Your task to perform on an android device: Add usb-a to the cart on walmart, then select checkout. Image 0: 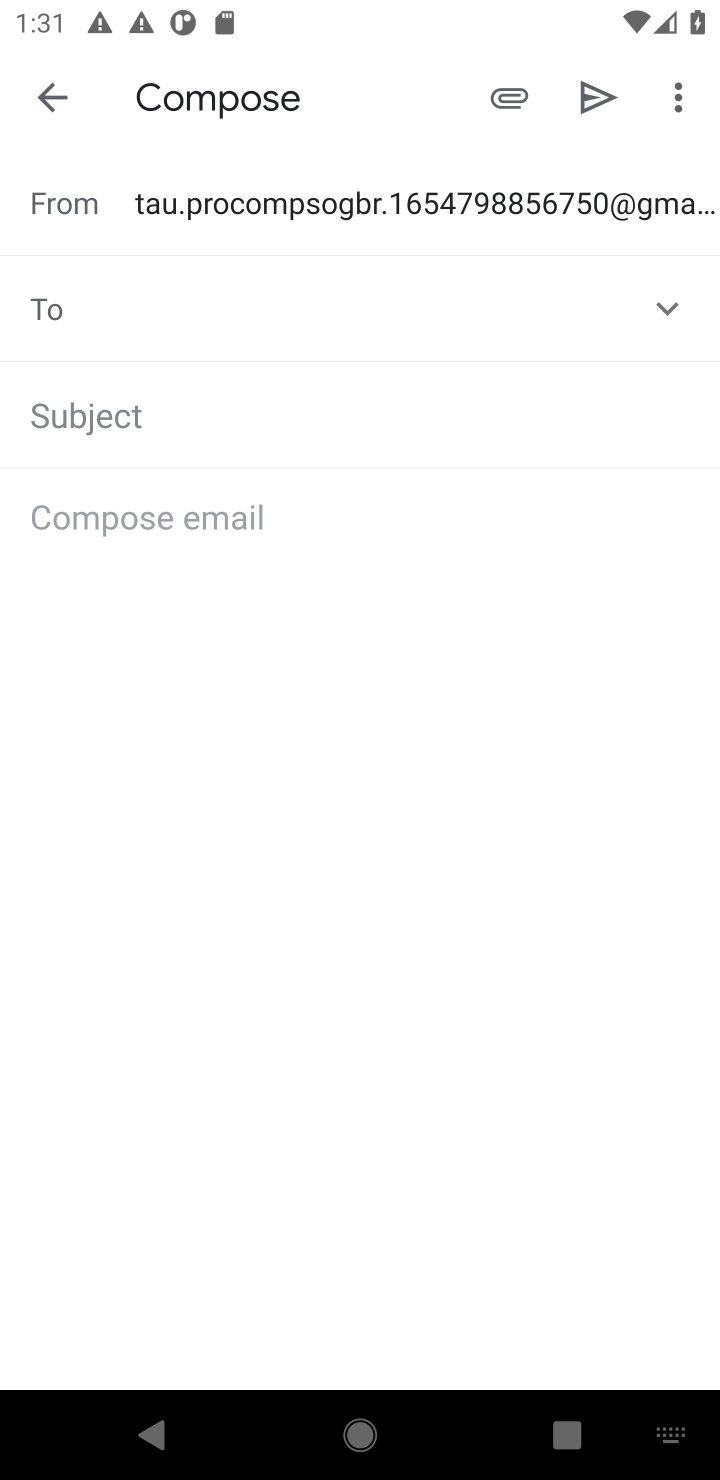
Step 0: press home button
Your task to perform on an android device: Add usb-a to the cart on walmart, then select checkout. Image 1: 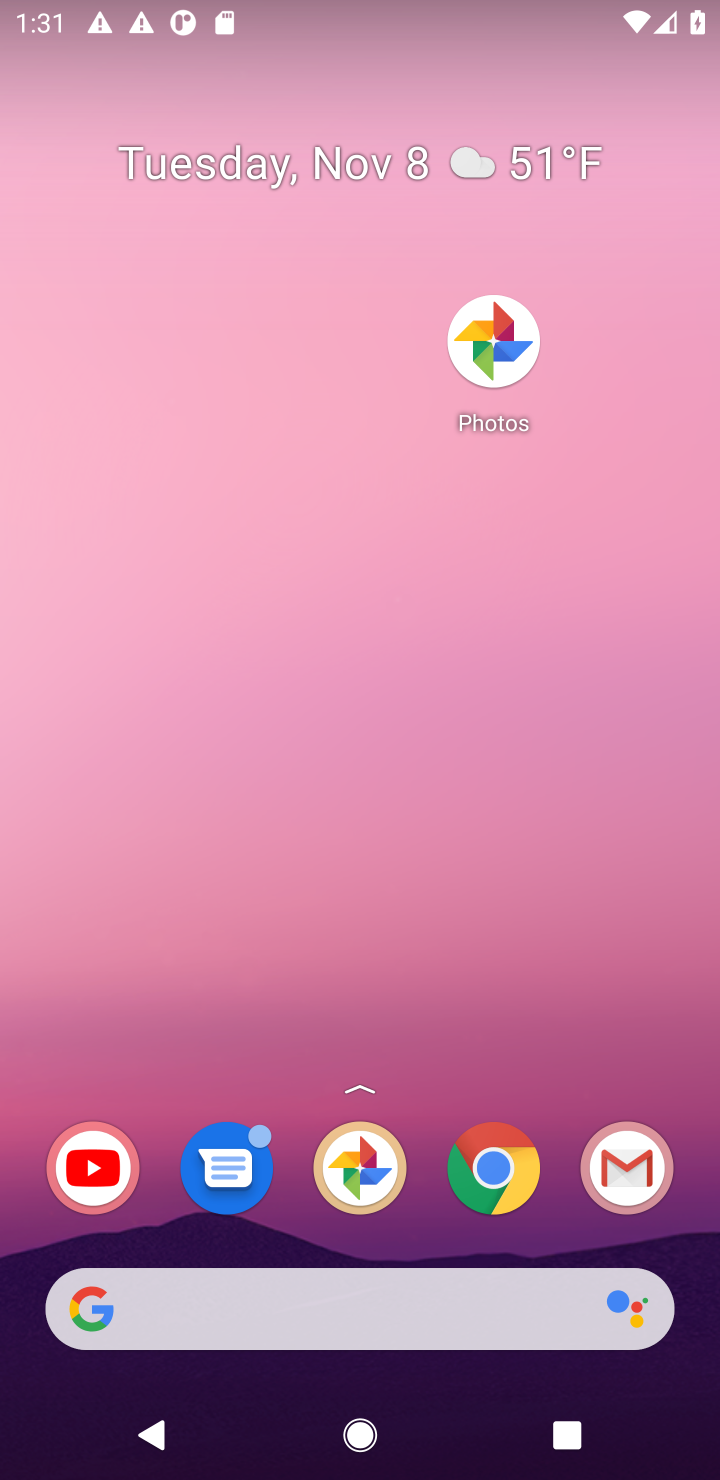
Step 1: drag from (407, 1082) to (338, 316)
Your task to perform on an android device: Add usb-a to the cart on walmart, then select checkout. Image 2: 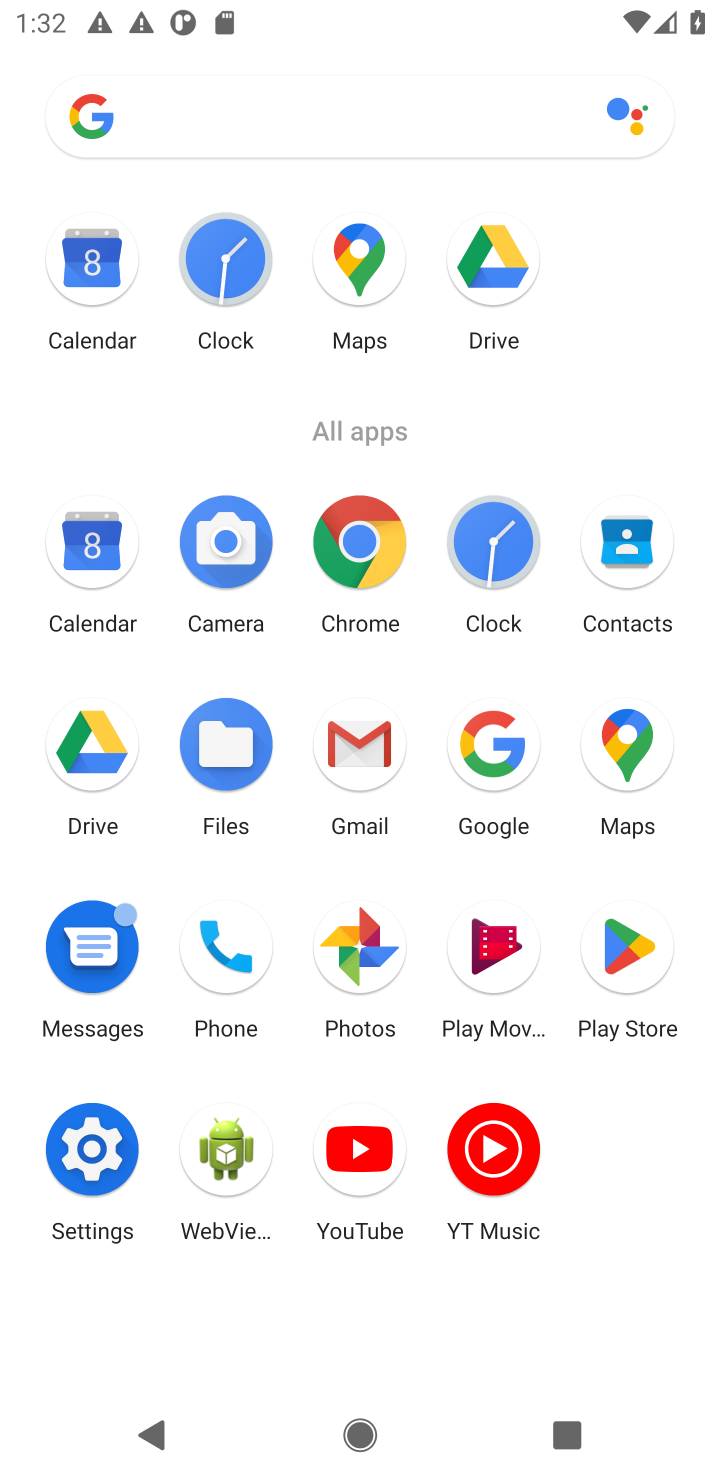
Step 2: click (385, 556)
Your task to perform on an android device: Add usb-a to the cart on walmart, then select checkout. Image 3: 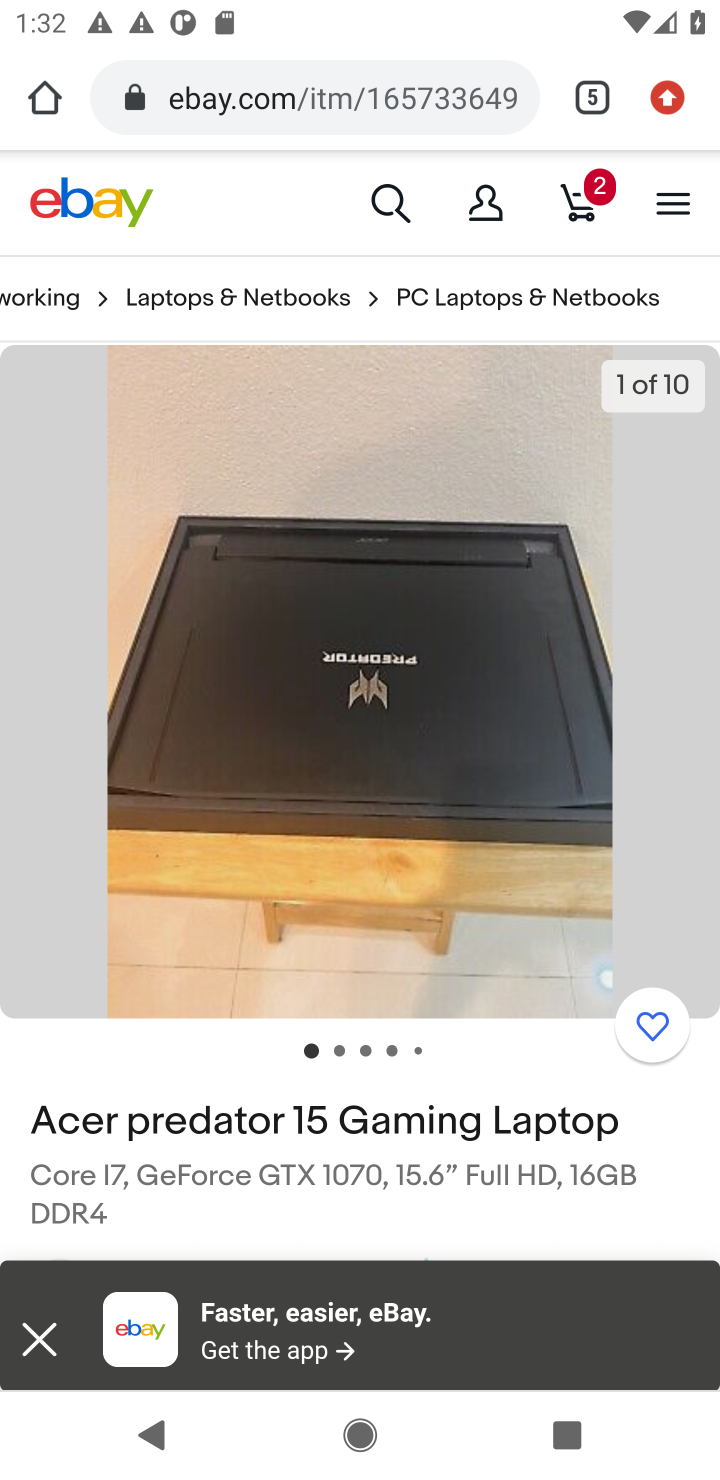
Step 3: click (339, 98)
Your task to perform on an android device: Add usb-a to the cart on walmart, then select checkout. Image 4: 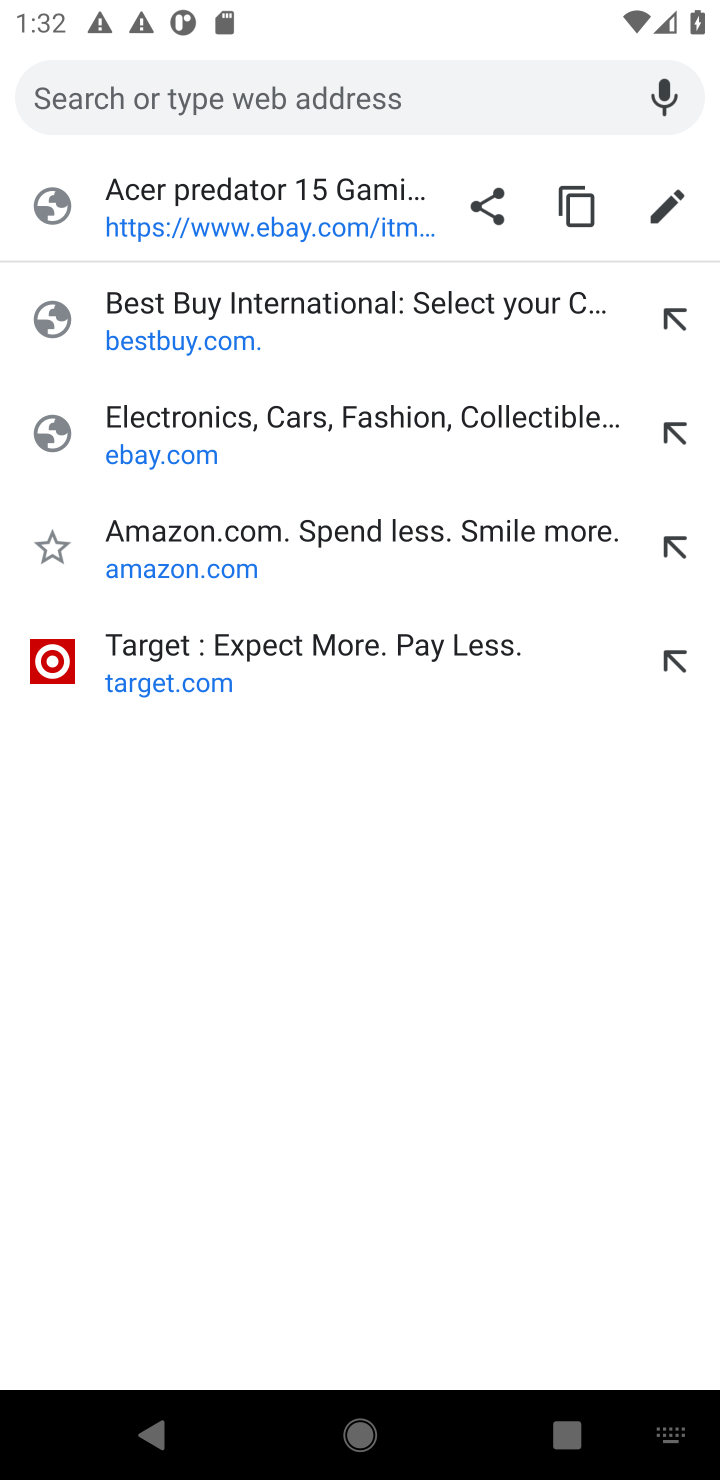
Step 4: press enter
Your task to perform on an android device: Add usb-a to the cart on walmart, then select checkout. Image 5: 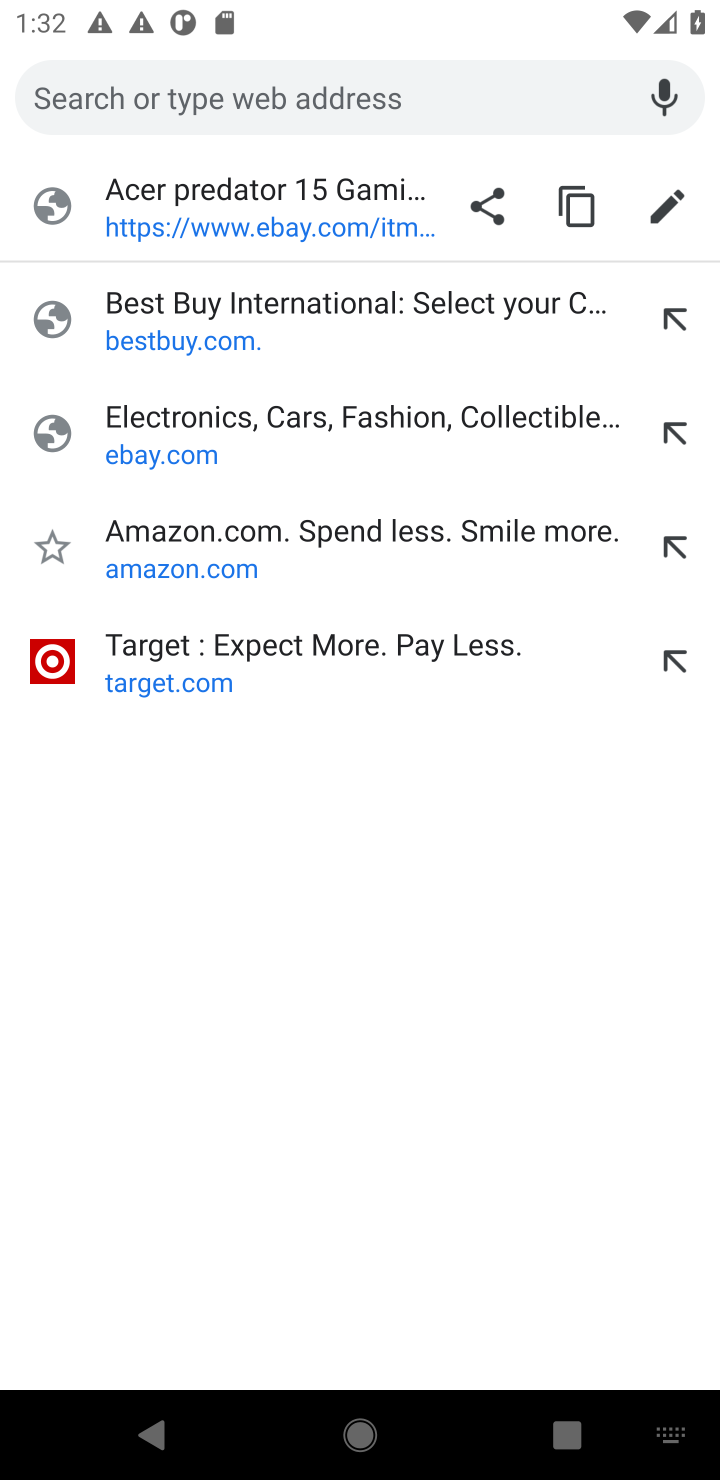
Step 5: type "walmart"
Your task to perform on an android device: Add usb-a to the cart on walmart, then select checkout. Image 6: 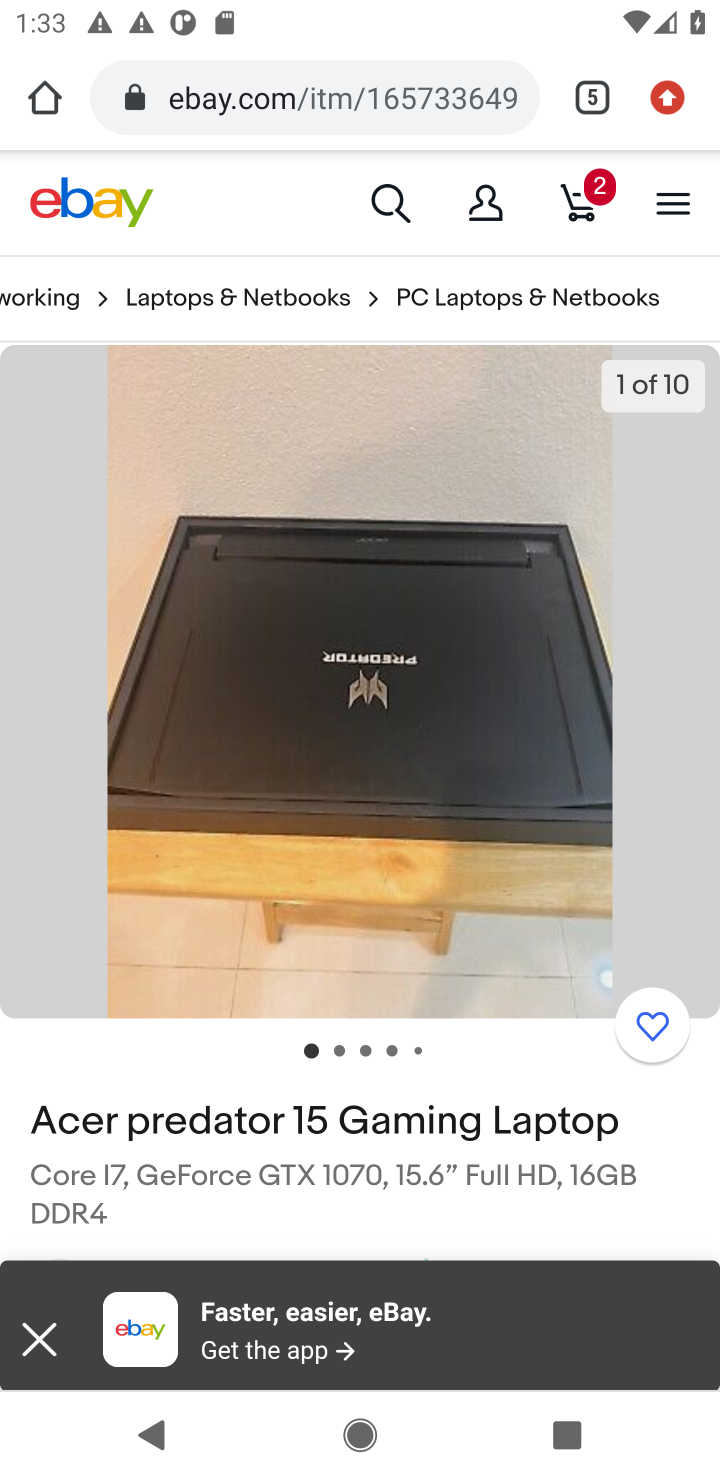
Step 6: click (392, 88)
Your task to perform on an android device: Add usb-a to the cart on walmart, then select checkout. Image 7: 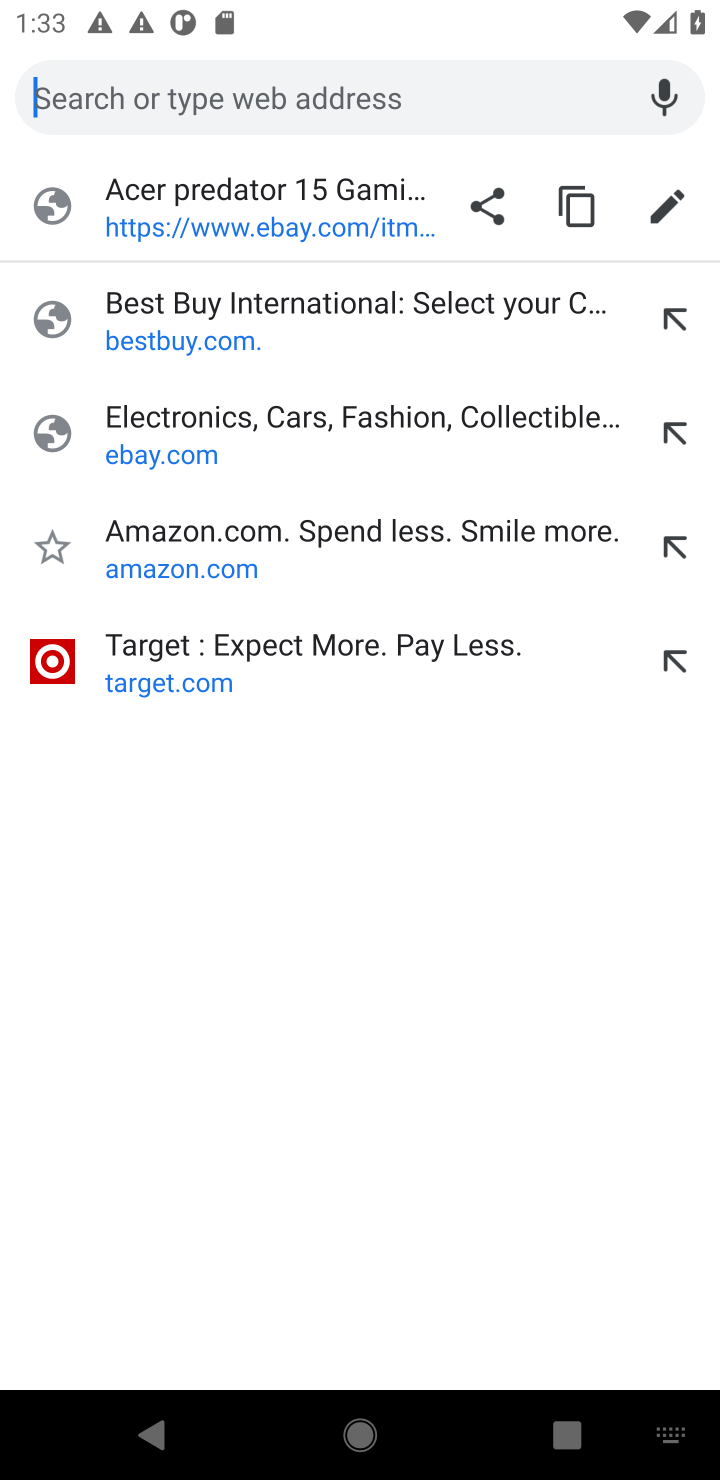
Step 7: type "walmart"
Your task to perform on an android device: Add usb-a to the cart on walmart, then select checkout. Image 8: 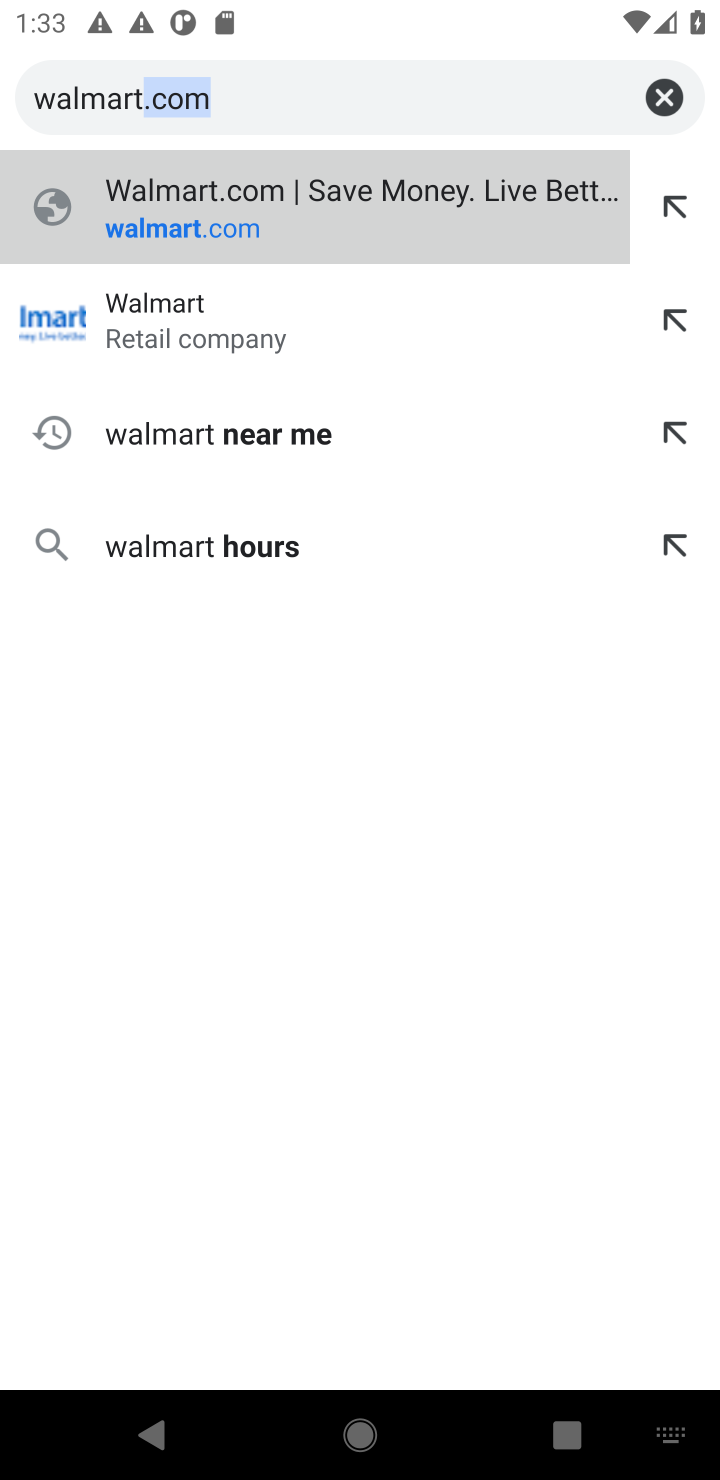
Step 8: press enter
Your task to perform on an android device: Add usb-a to the cart on walmart, then select checkout. Image 9: 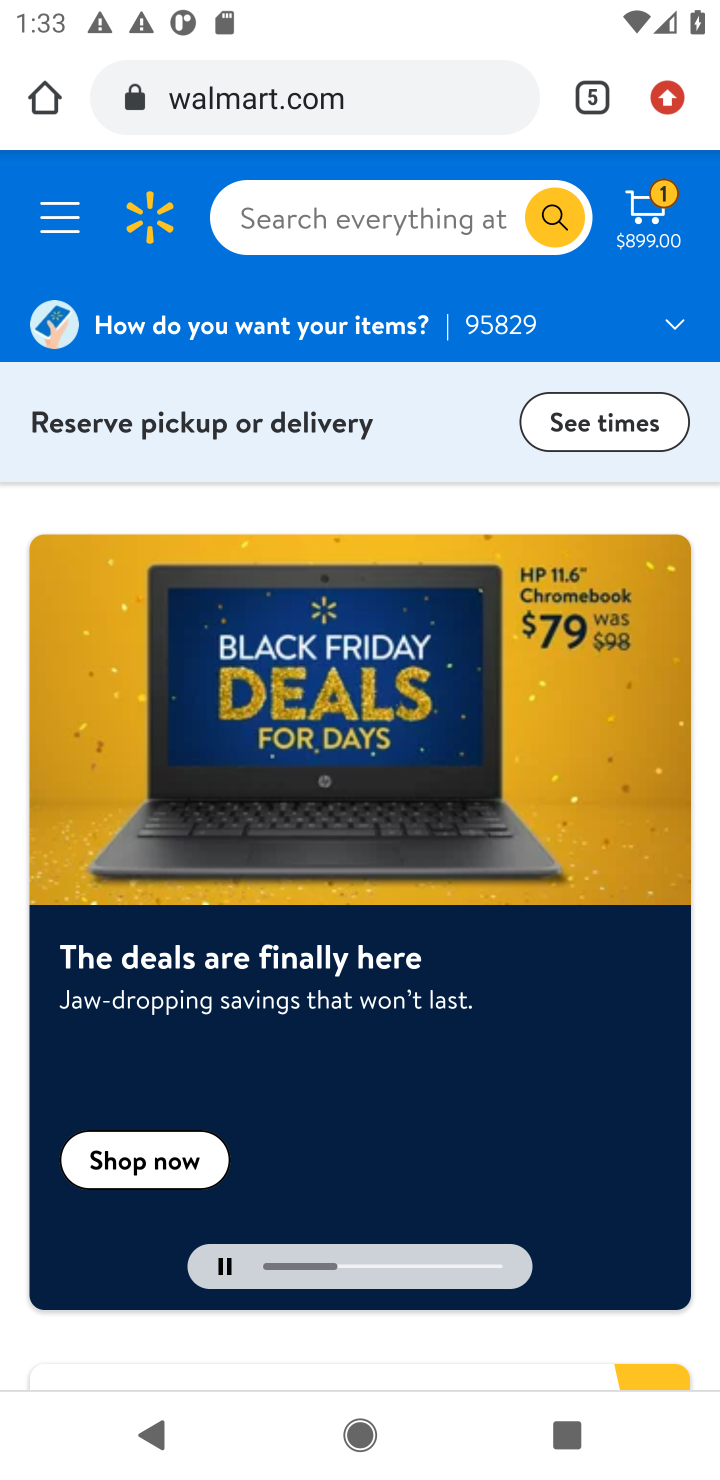
Step 9: click (420, 215)
Your task to perform on an android device: Add usb-a to the cart on walmart, then select checkout. Image 10: 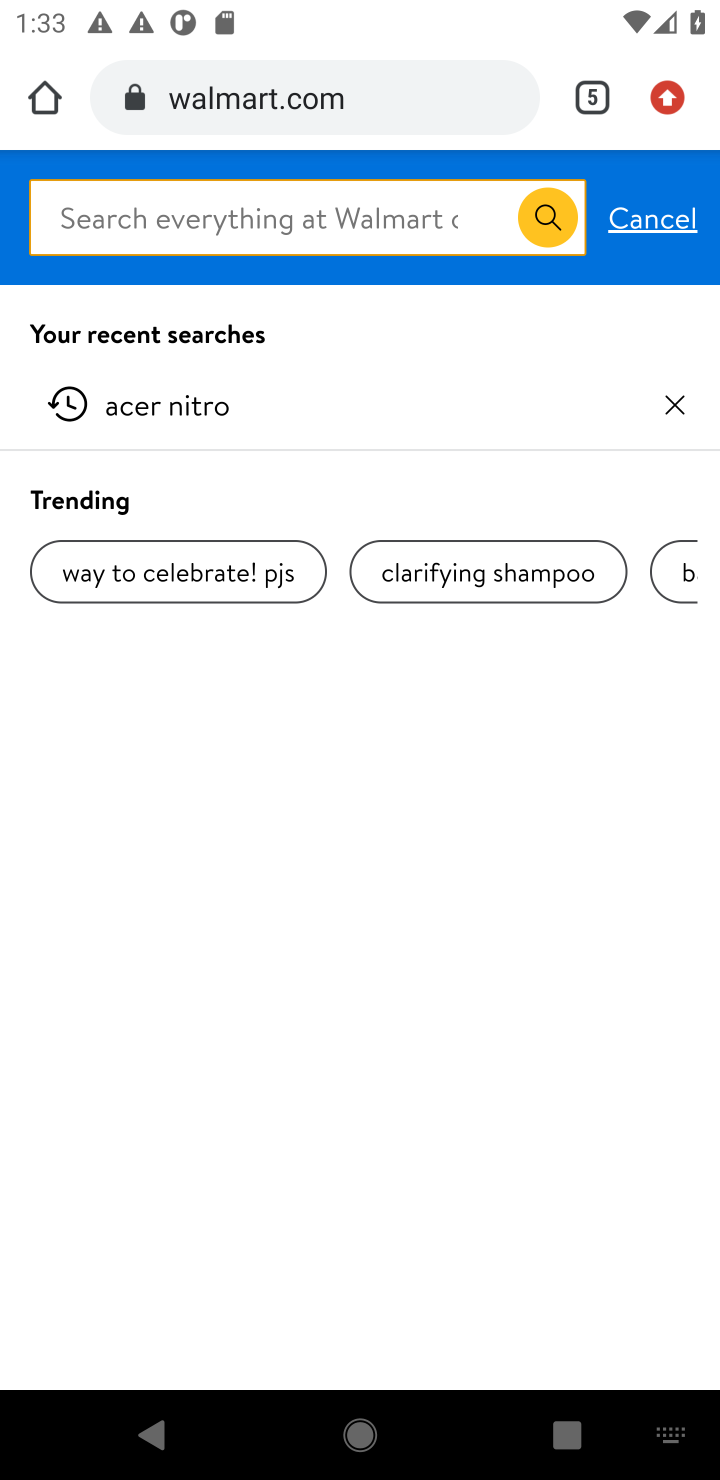
Step 10: type "Add usb-a "
Your task to perform on an android device: Add usb-a to the cart on walmart, then select checkout. Image 11: 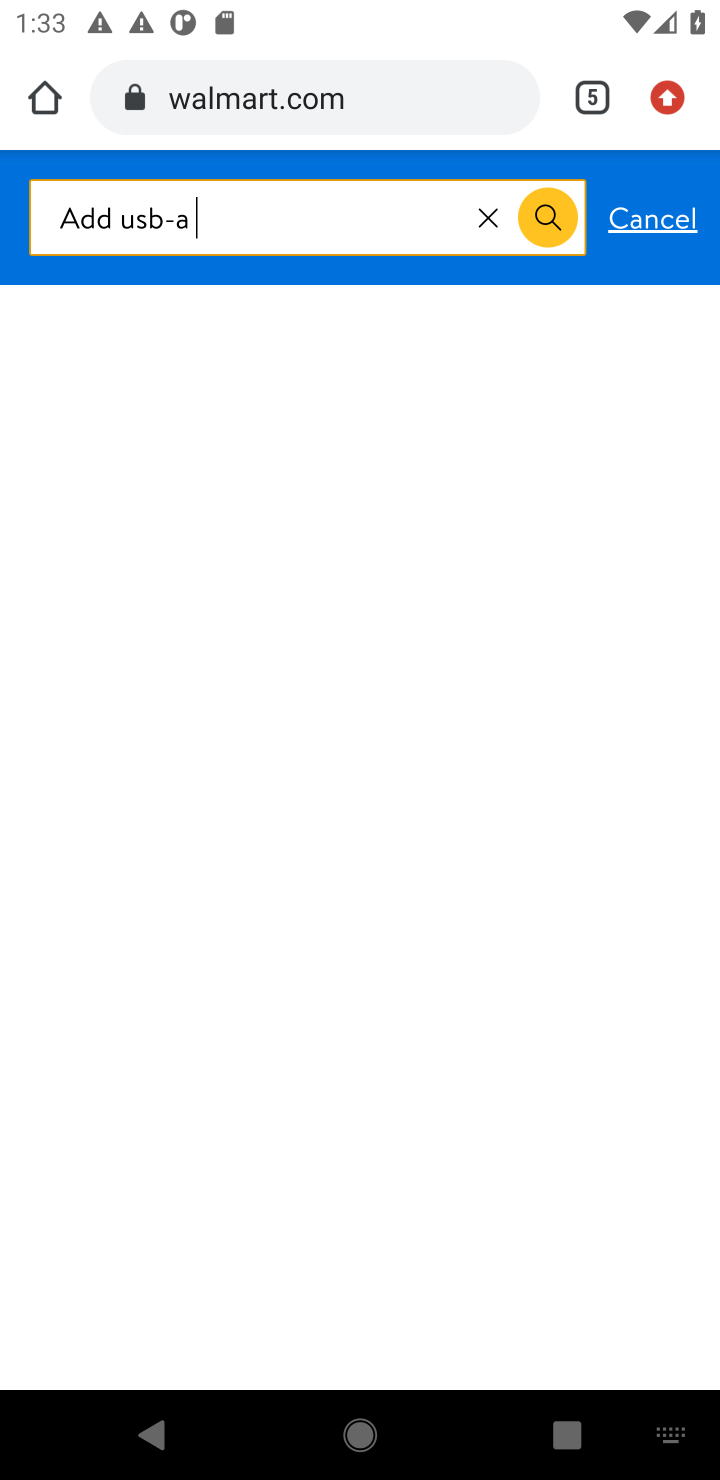
Step 11: press enter
Your task to perform on an android device: Add usb-a to the cart on walmart, then select checkout. Image 12: 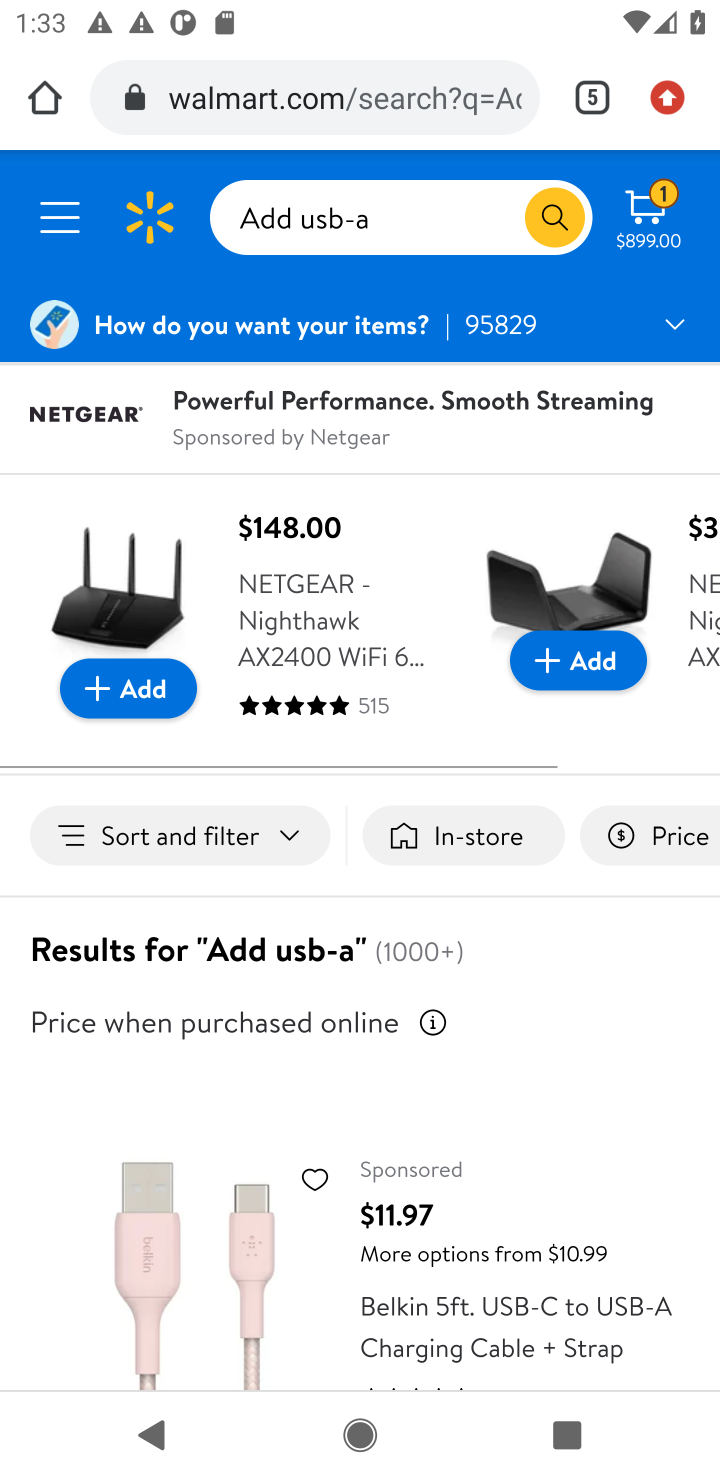
Step 12: drag from (548, 1041) to (592, 803)
Your task to perform on an android device: Add usb-a to the cart on walmart, then select checkout. Image 13: 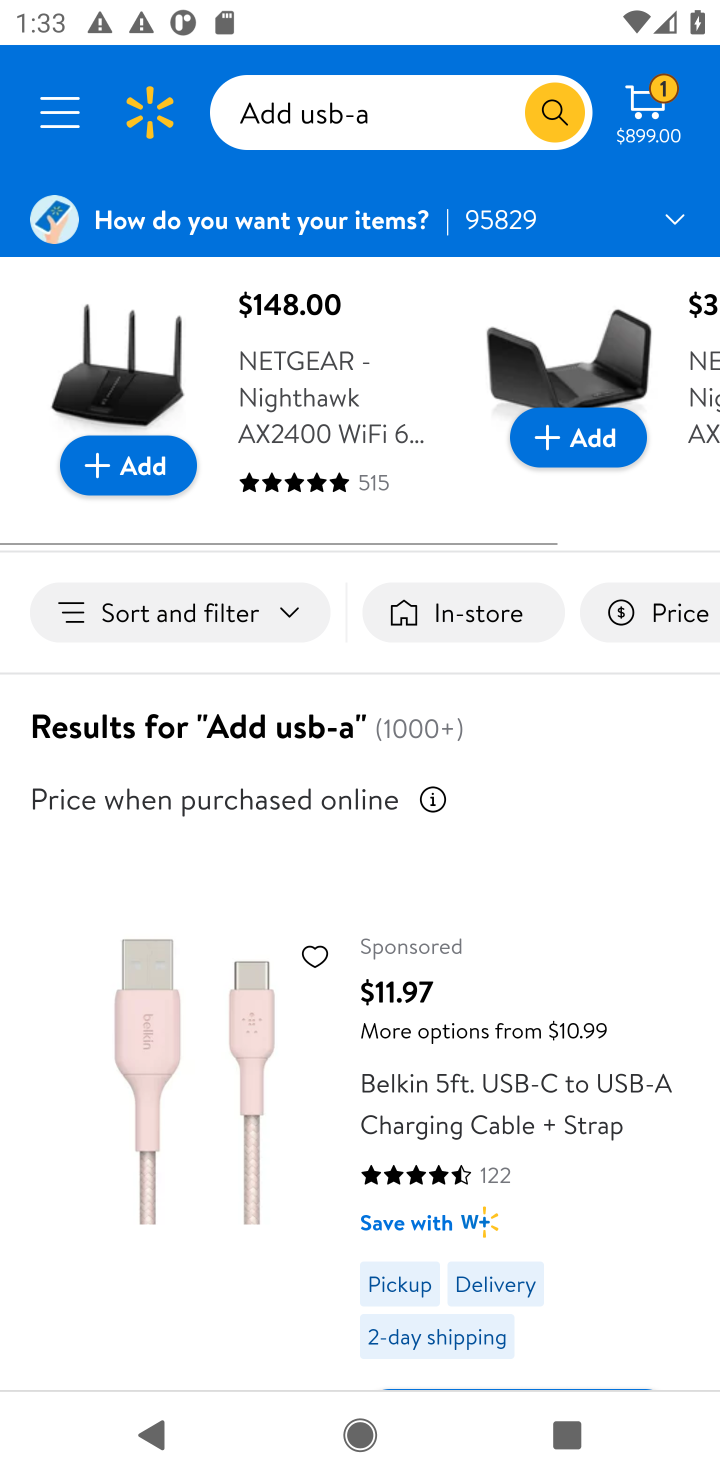
Step 13: drag from (540, 987) to (534, 639)
Your task to perform on an android device: Add usb-a to the cart on walmart, then select checkout. Image 14: 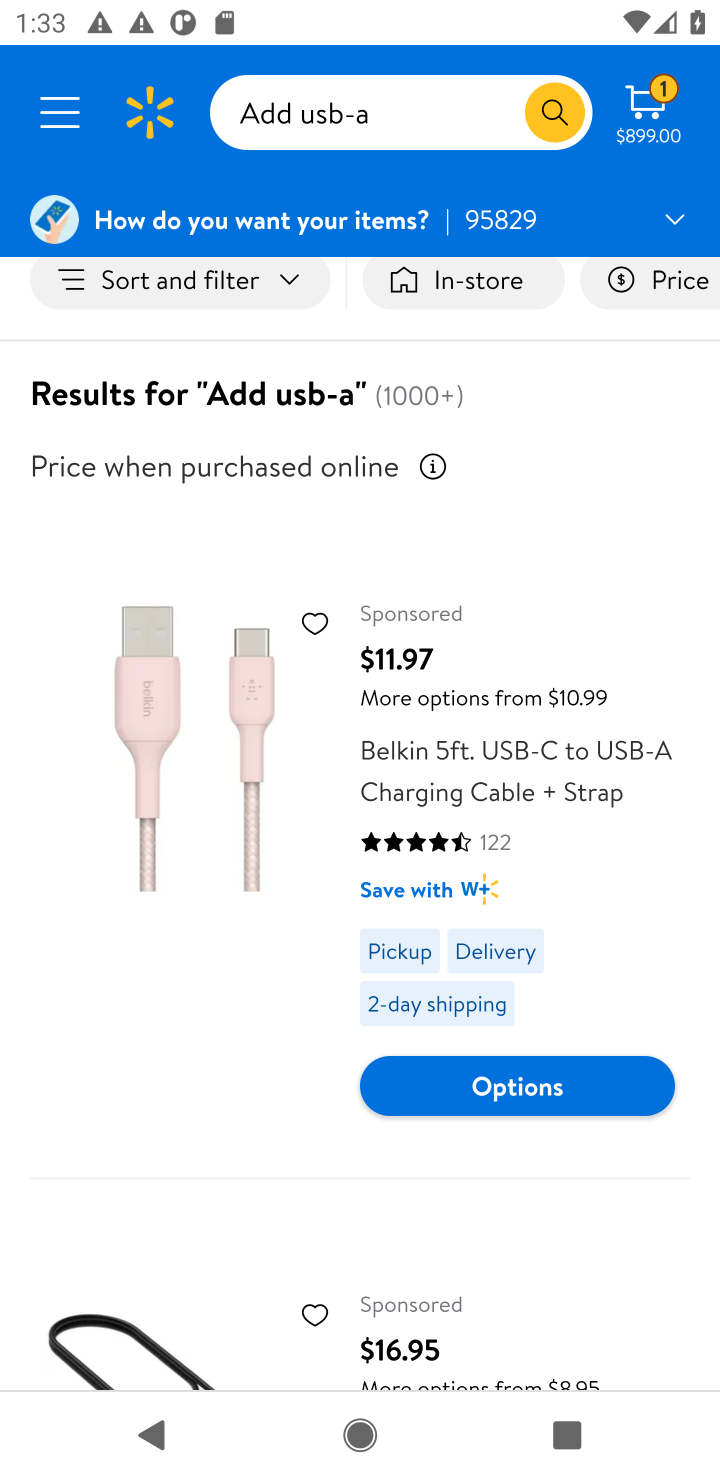
Step 14: click (539, 1097)
Your task to perform on an android device: Add usb-a to the cart on walmart, then select checkout. Image 15: 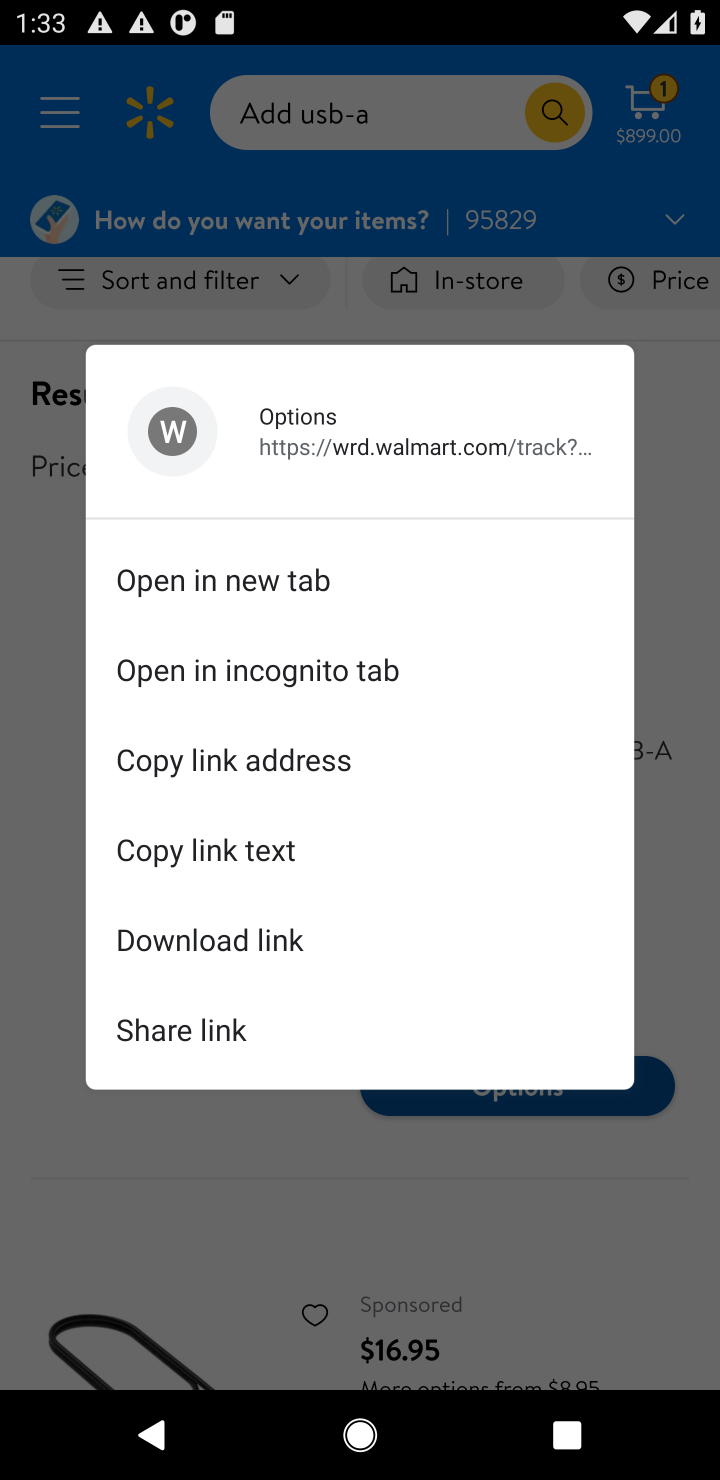
Step 15: click (231, 563)
Your task to perform on an android device: Add usb-a to the cart on walmart, then select checkout. Image 16: 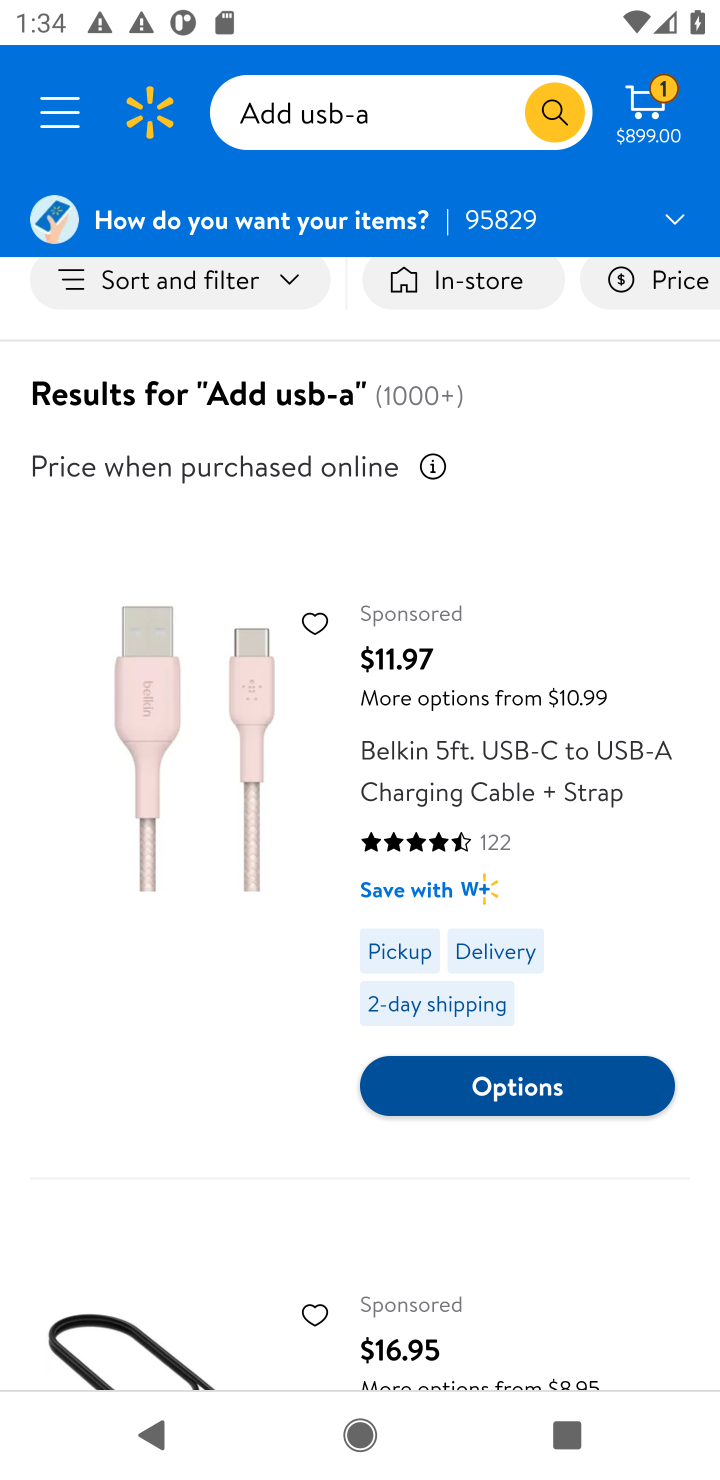
Step 16: click (481, 1066)
Your task to perform on an android device: Add usb-a to the cart on walmart, then select checkout. Image 17: 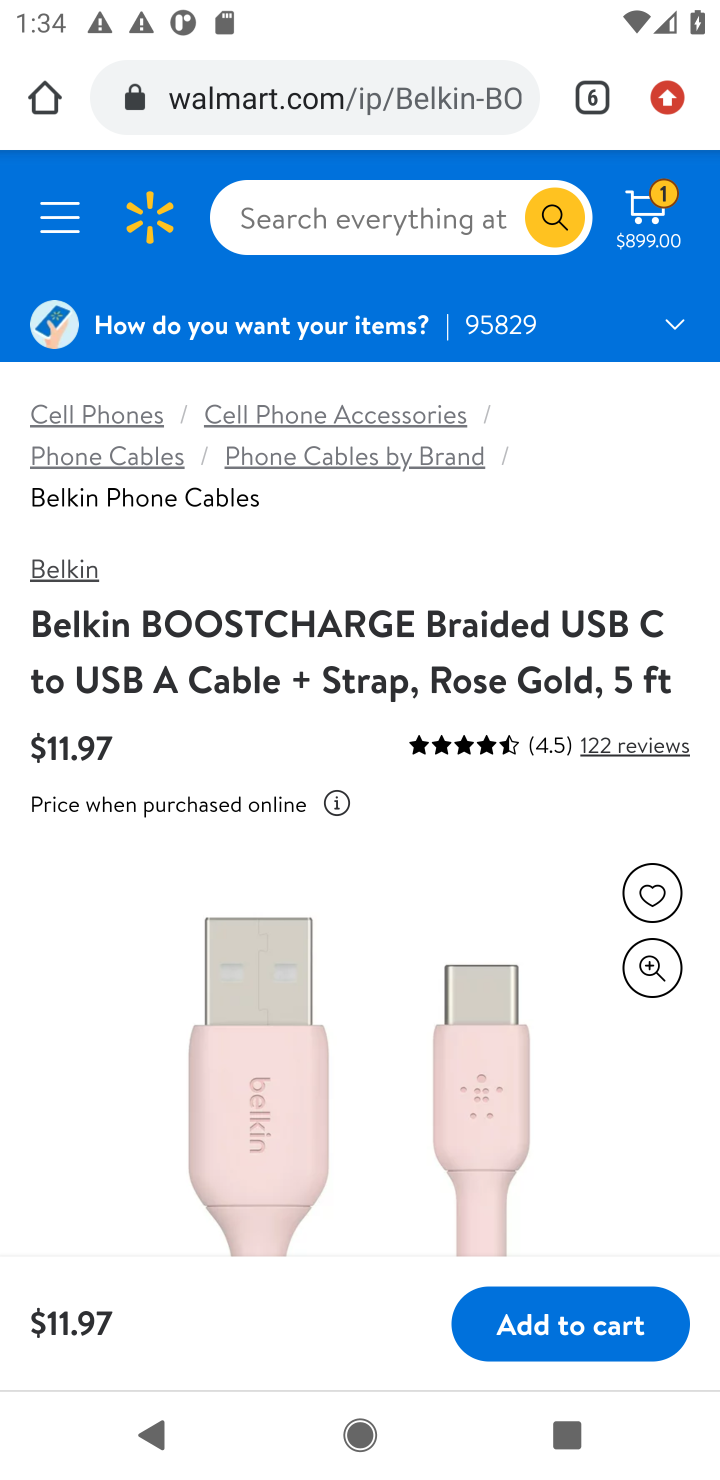
Step 17: click (574, 1325)
Your task to perform on an android device: Add usb-a to the cart on walmart, then select checkout. Image 18: 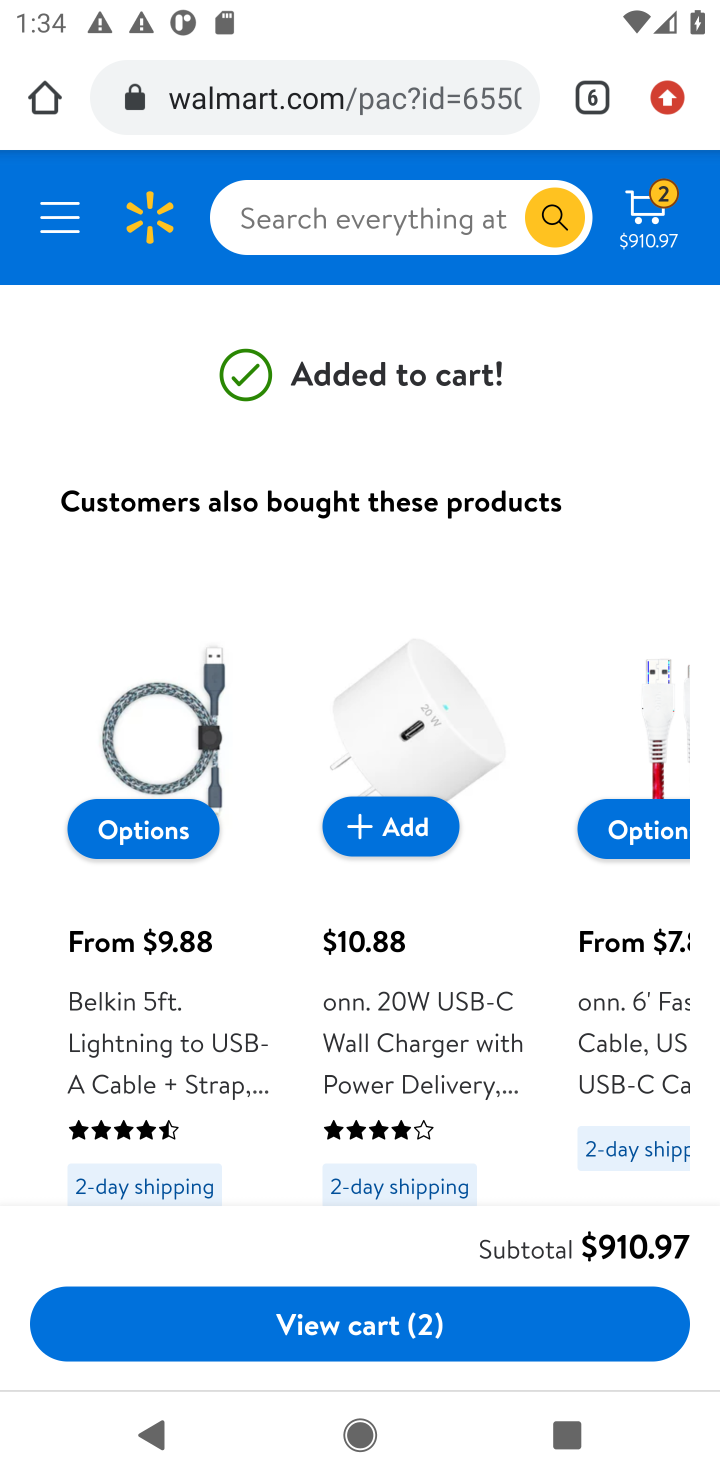
Step 18: click (647, 212)
Your task to perform on an android device: Add usb-a to the cart on walmart, then select checkout. Image 19: 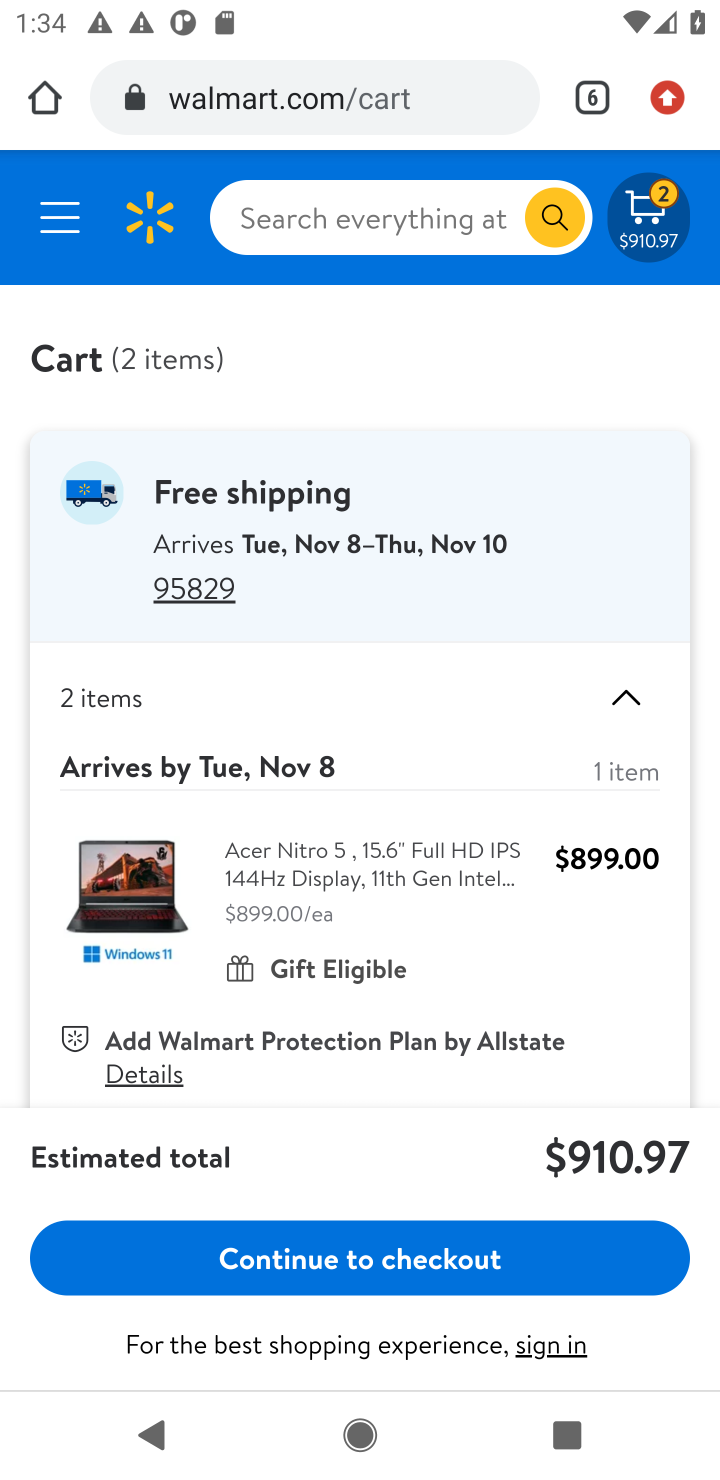
Step 19: click (380, 1269)
Your task to perform on an android device: Add usb-a to the cart on walmart, then select checkout. Image 20: 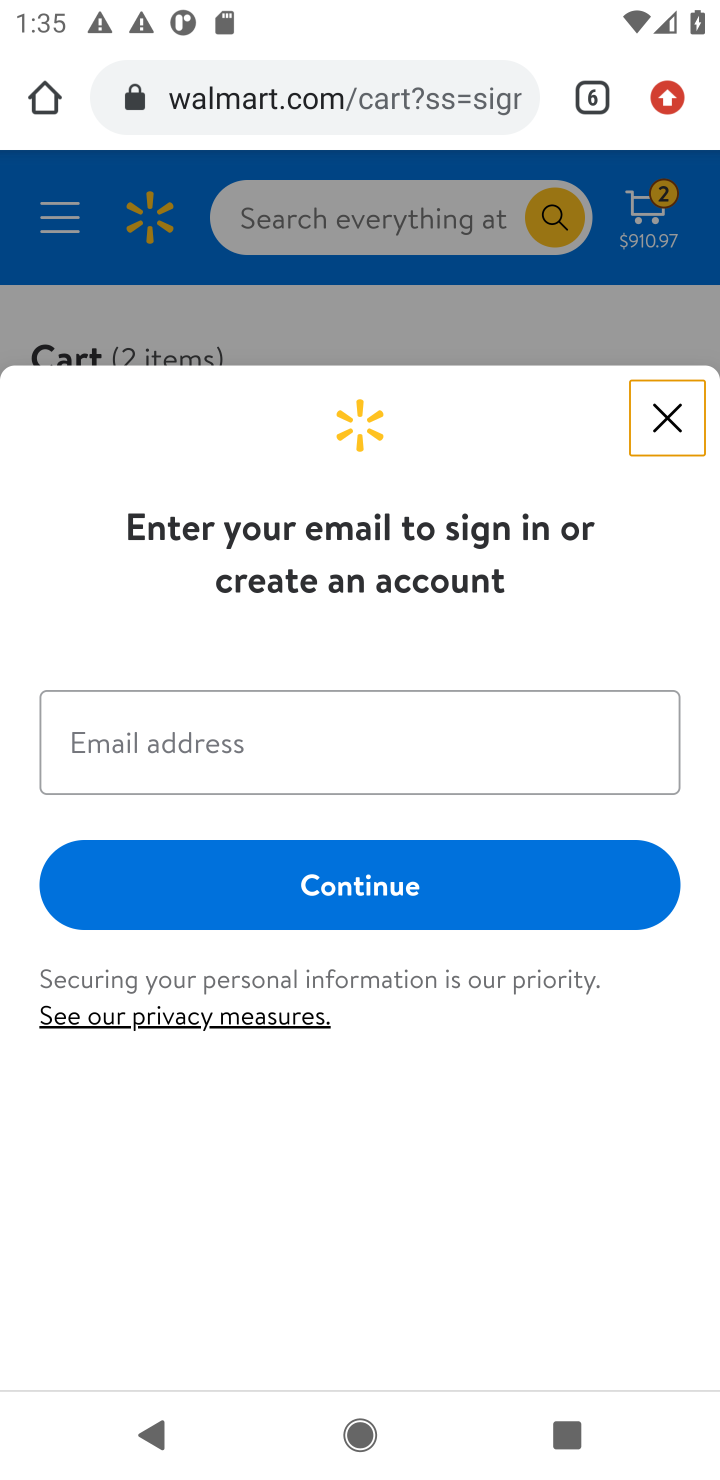
Step 20: task complete